Your task to perform on an android device: add a contact in the contacts app Image 0: 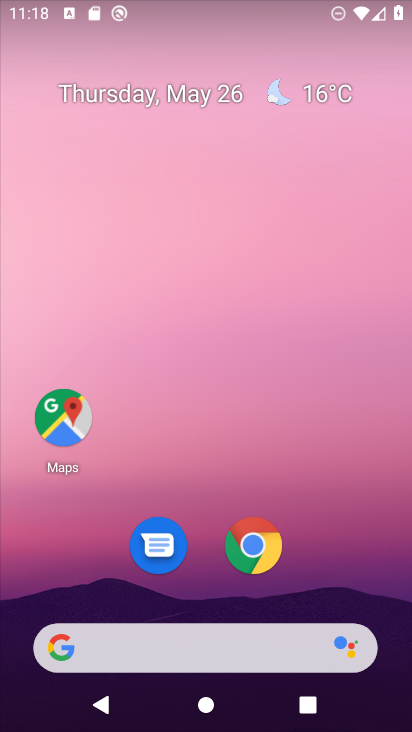
Step 0: press home button
Your task to perform on an android device: add a contact in the contacts app Image 1: 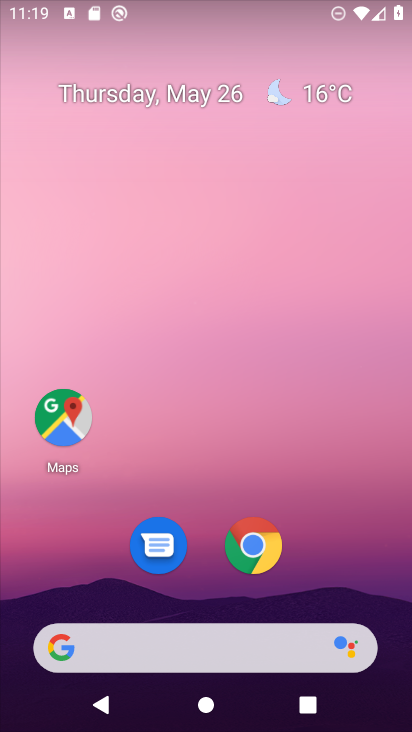
Step 1: drag from (237, 578) to (244, 166)
Your task to perform on an android device: add a contact in the contacts app Image 2: 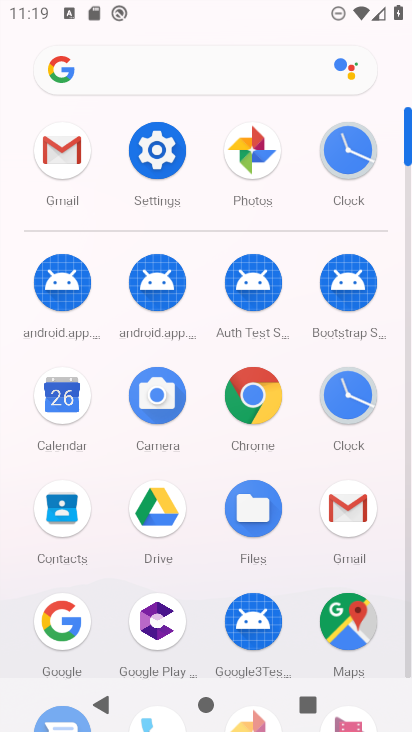
Step 2: click (58, 525)
Your task to perform on an android device: add a contact in the contacts app Image 3: 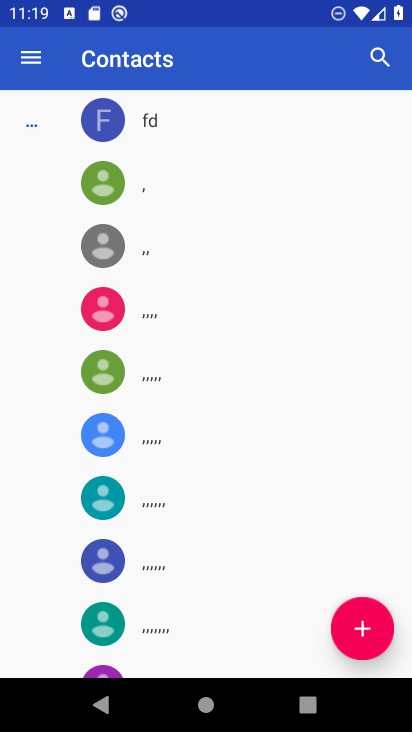
Step 3: click (346, 631)
Your task to perform on an android device: add a contact in the contacts app Image 4: 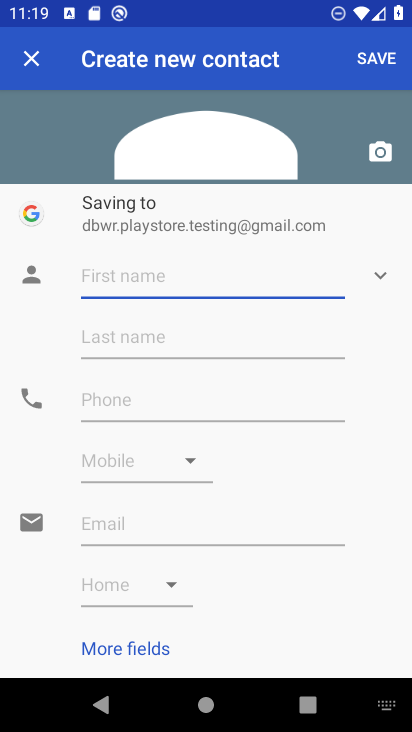
Step 4: type "jkljljlmjlml"
Your task to perform on an android device: add a contact in the contacts app Image 5: 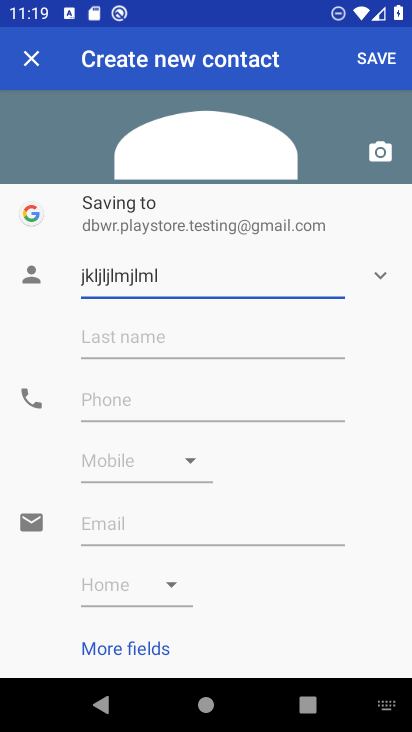
Step 5: click (167, 380)
Your task to perform on an android device: add a contact in the contacts app Image 6: 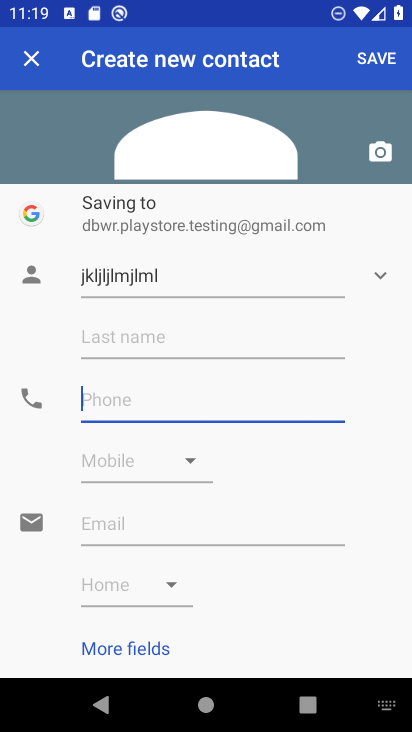
Step 6: type "6888"
Your task to perform on an android device: add a contact in the contacts app Image 7: 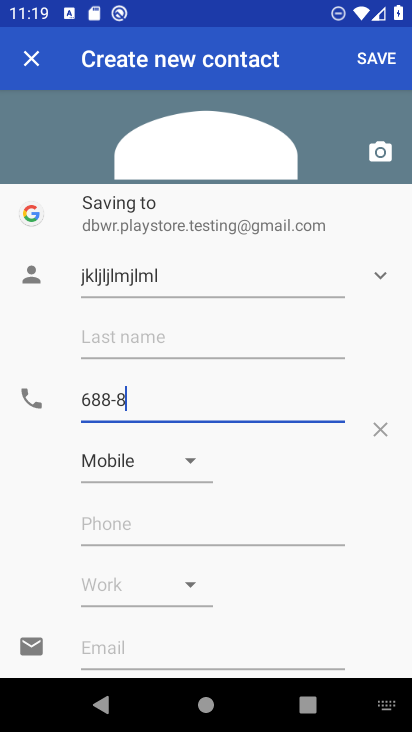
Step 7: click (370, 62)
Your task to perform on an android device: add a contact in the contacts app Image 8: 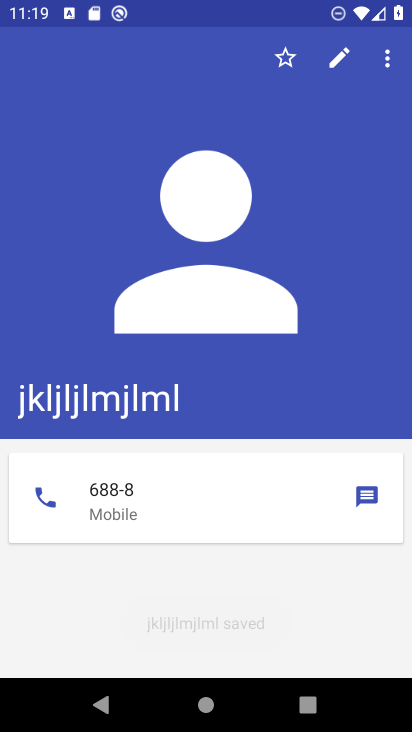
Step 8: task complete